Your task to perform on an android device: When is my next appointment? Image 0: 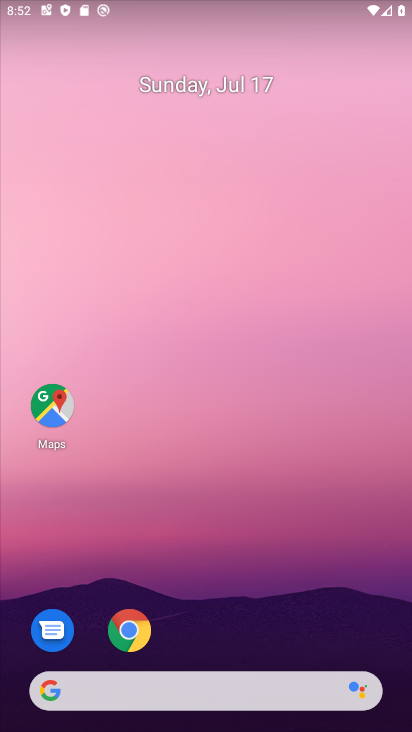
Step 0: drag from (228, 719) to (233, 96)
Your task to perform on an android device: When is my next appointment? Image 1: 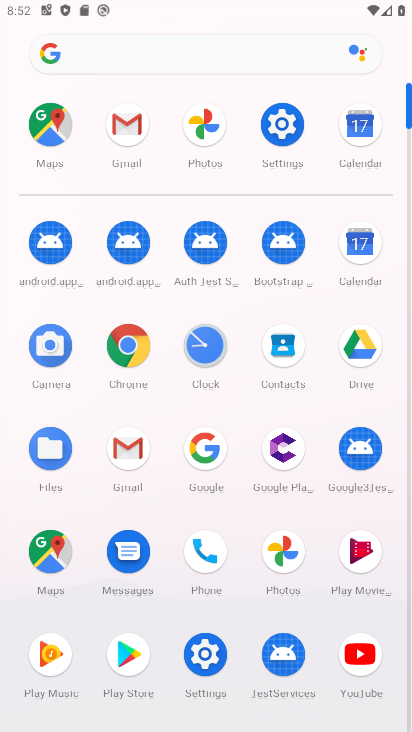
Step 1: click (369, 242)
Your task to perform on an android device: When is my next appointment? Image 2: 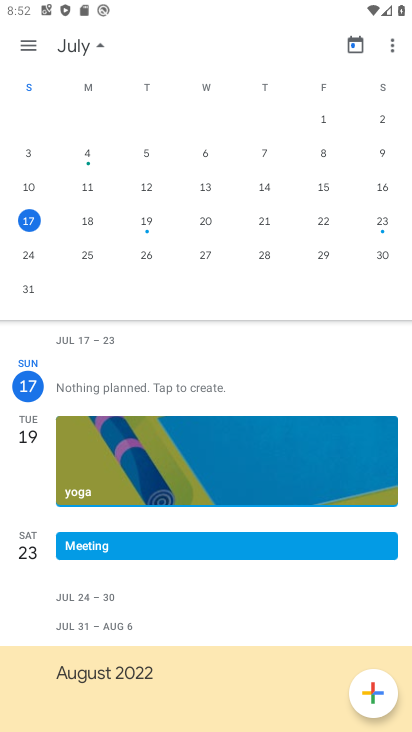
Step 2: click (354, 49)
Your task to perform on an android device: When is my next appointment? Image 3: 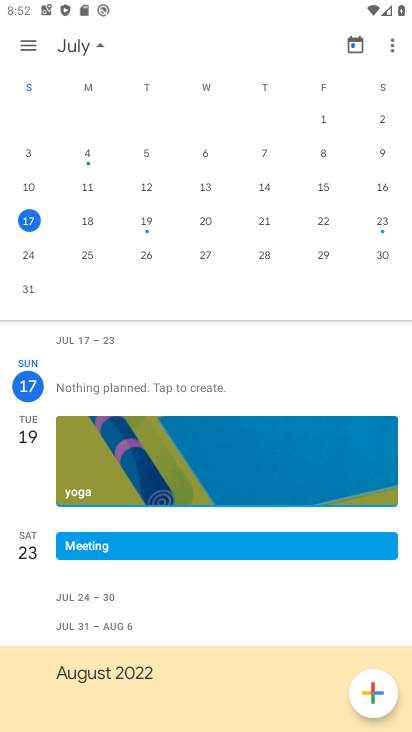
Step 3: task complete